Your task to perform on an android device: Open Reddit.com Image 0: 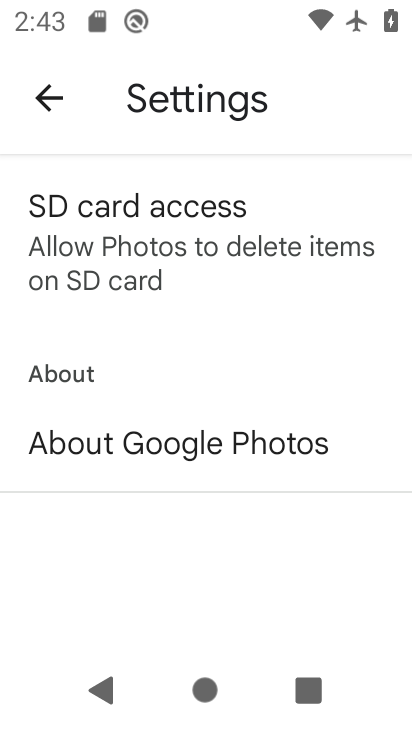
Step 0: press home button
Your task to perform on an android device: Open Reddit.com Image 1: 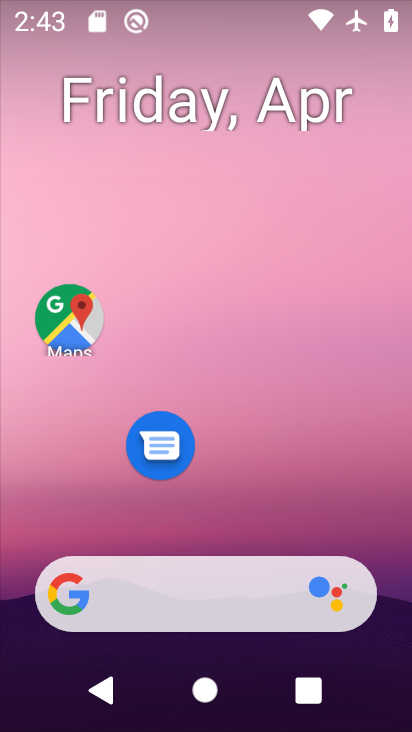
Step 1: drag from (236, 508) to (279, 114)
Your task to perform on an android device: Open Reddit.com Image 2: 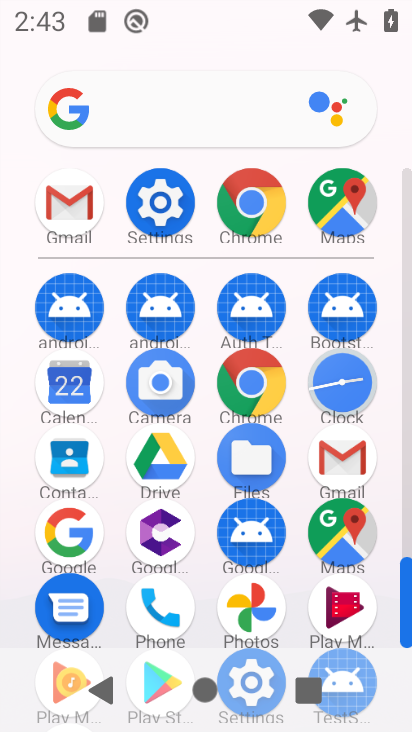
Step 2: click (239, 230)
Your task to perform on an android device: Open Reddit.com Image 3: 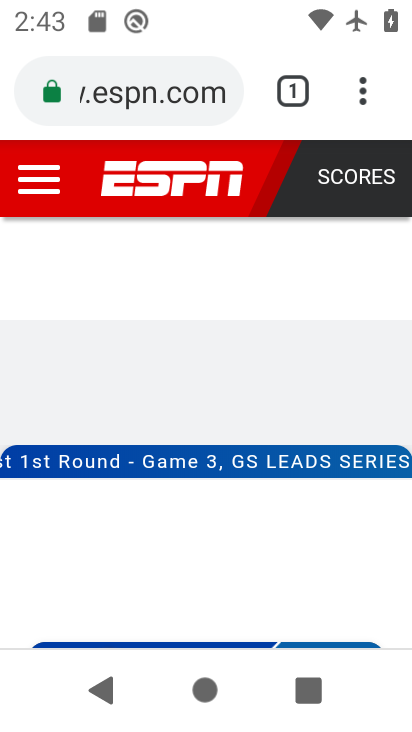
Step 3: click (145, 96)
Your task to perform on an android device: Open Reddit.com Image 4: 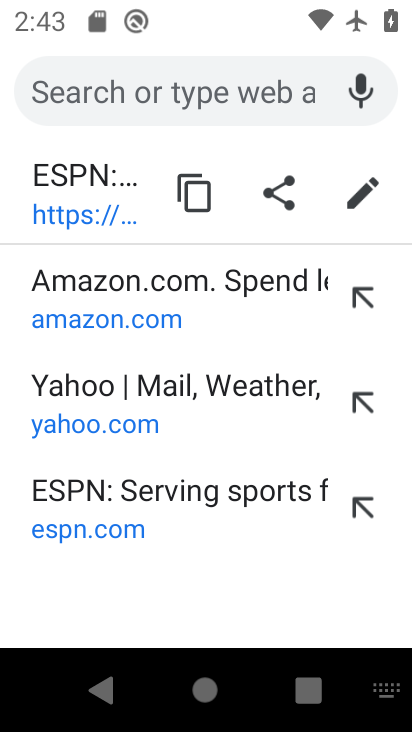
Step 4: type "Reddit.com"
Your task to perform on an android device: Open Reddit.com Image 5: 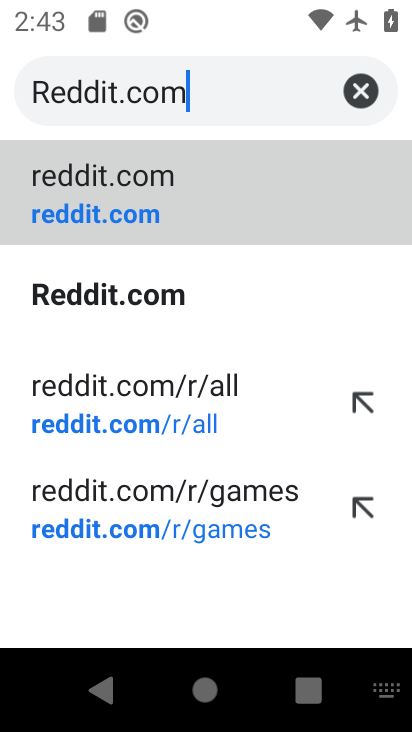
Step 5: click (107, 207)
Your task to perform on an android device: Open Reddit.com Image 6: 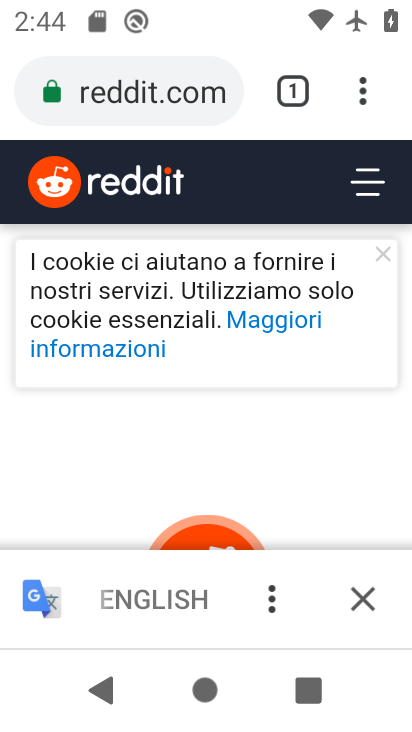
Step 6: task complete